Your task to perform on an android device: Go to privacy settings Image 0: 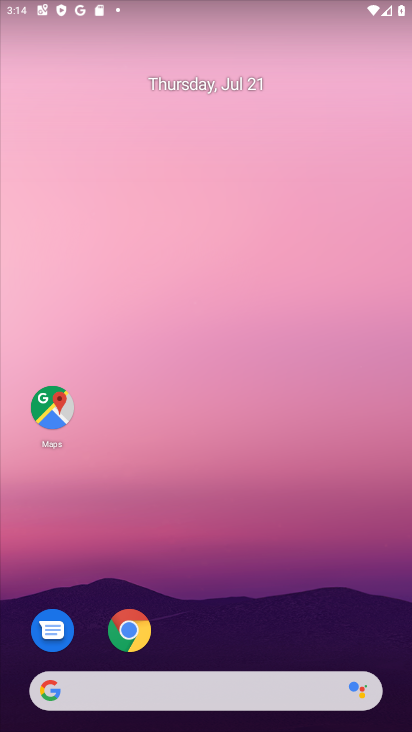
Step 0: drag from (308, 613) to (220, 5)
Your task to perform on an android device: Go to privacy settings Image 1: 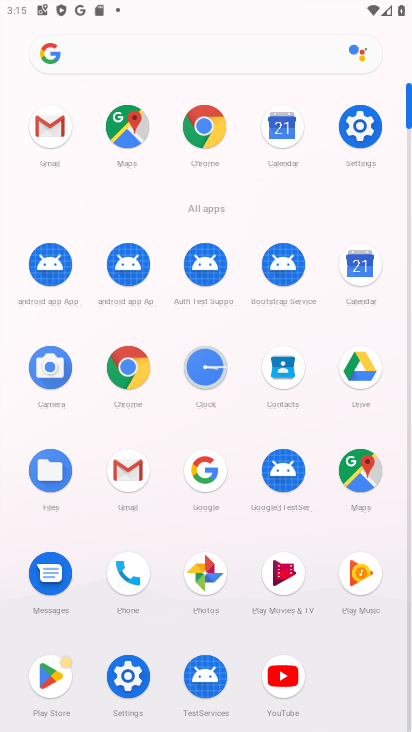
Step 1: click (371, 114)
Your task to perform on an android device: Go to privacy settings Image 2: 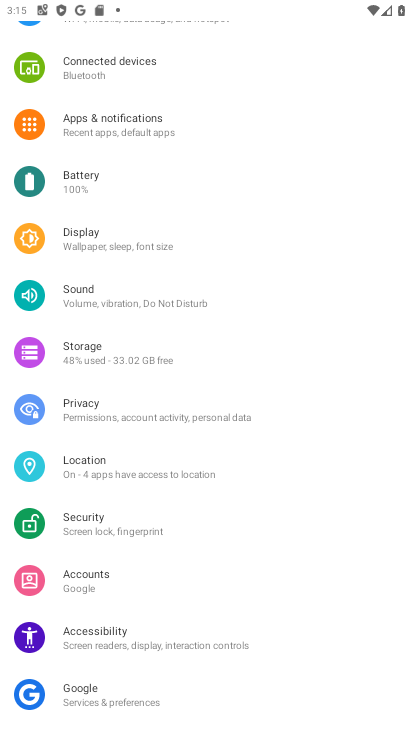
Step 2: click (103, 412)
Your task to perform on an android device: Go to privacy settings Image 3: 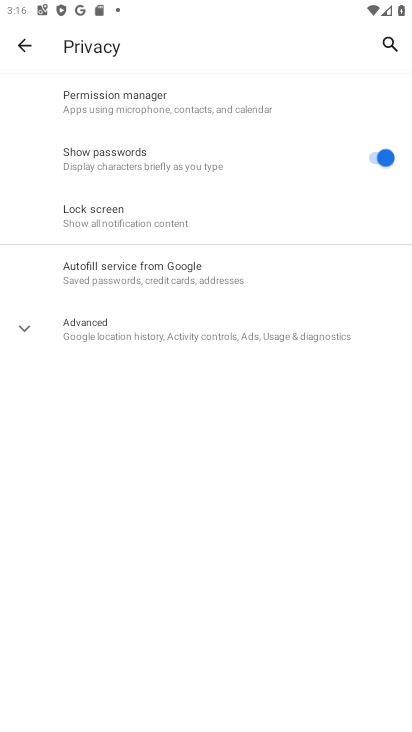
Step 3: task complete